Your task to perform on an android device: What is the capital of Germany? Image 0: 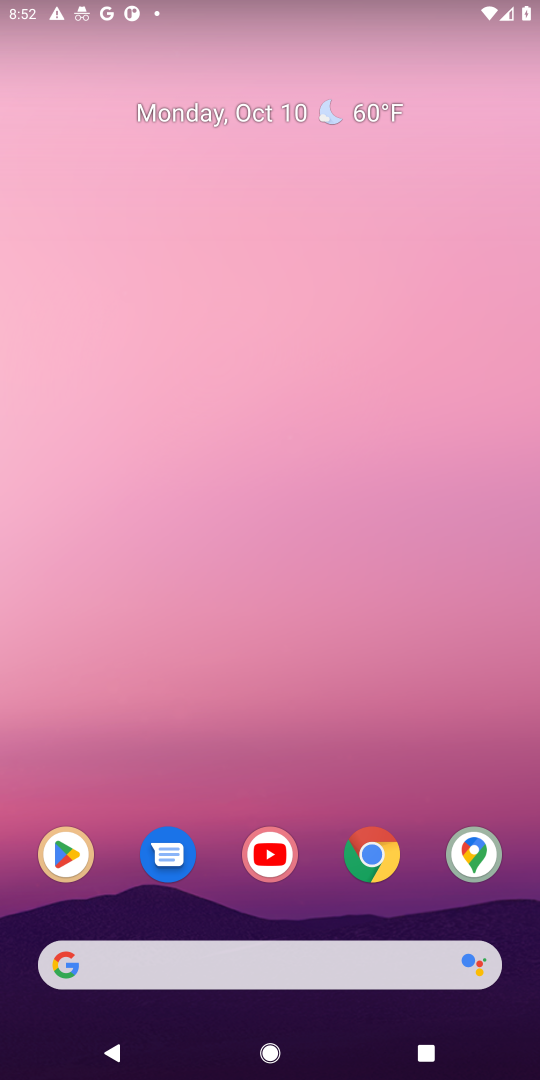
Step 0: click (363, 858)
Your task to perform on an android device: What is the capital of Germany? Image 1: 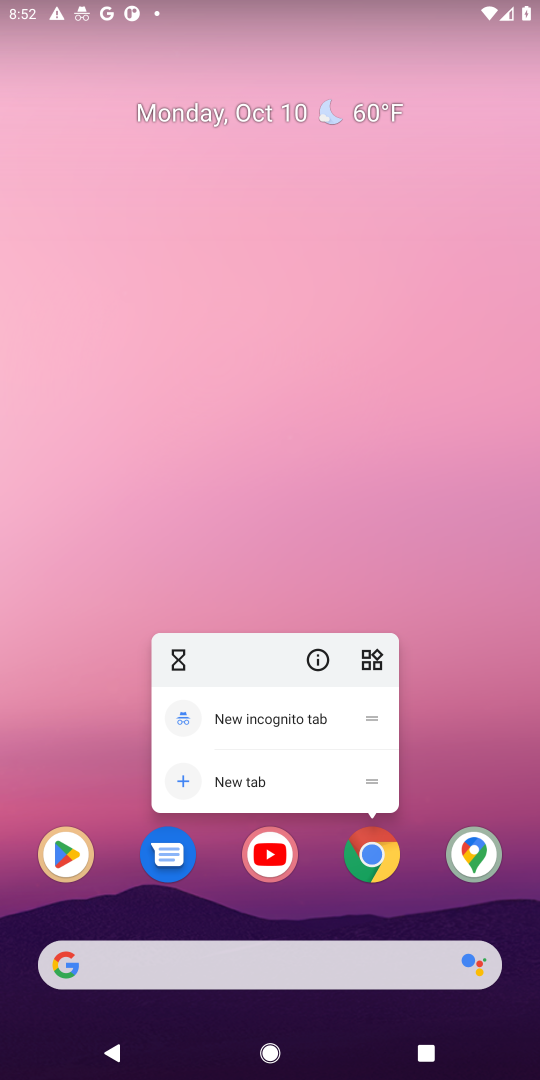
Step 1: click (374, 855)
Your task to perform on an android device: What is the capital of Germany? Image 2: 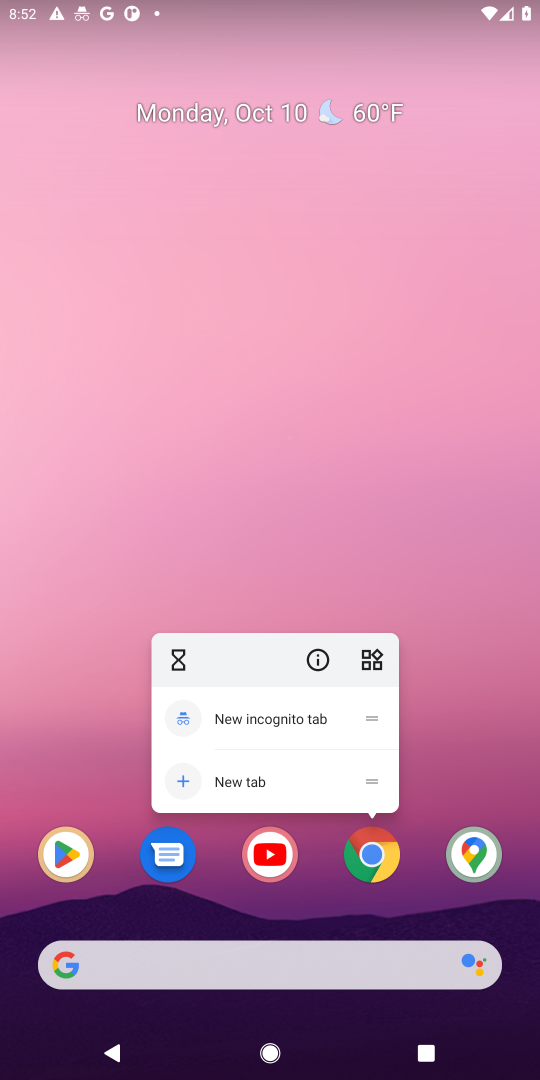
Step 2: click (374, 855)
Your task to perform on an android device: What is the capital of Germany? Image 3: 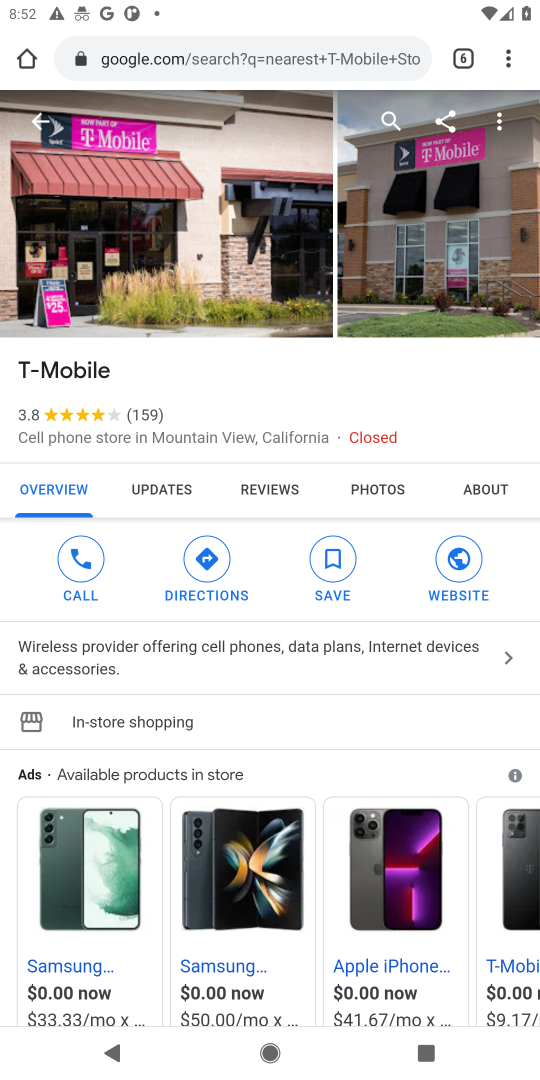
Step 3: click (279, 62)
Your task to perform on an android device: What is the capital of Germany? Image 4: 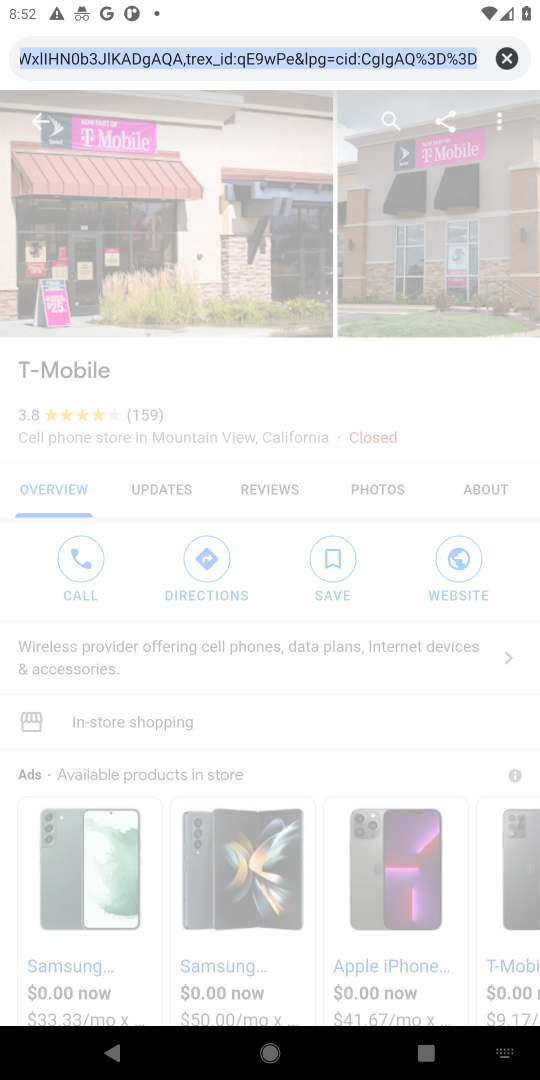
Step 4: click (502, 49)
Your task to perform on an android device: What is the capital of Germany? Image 5: 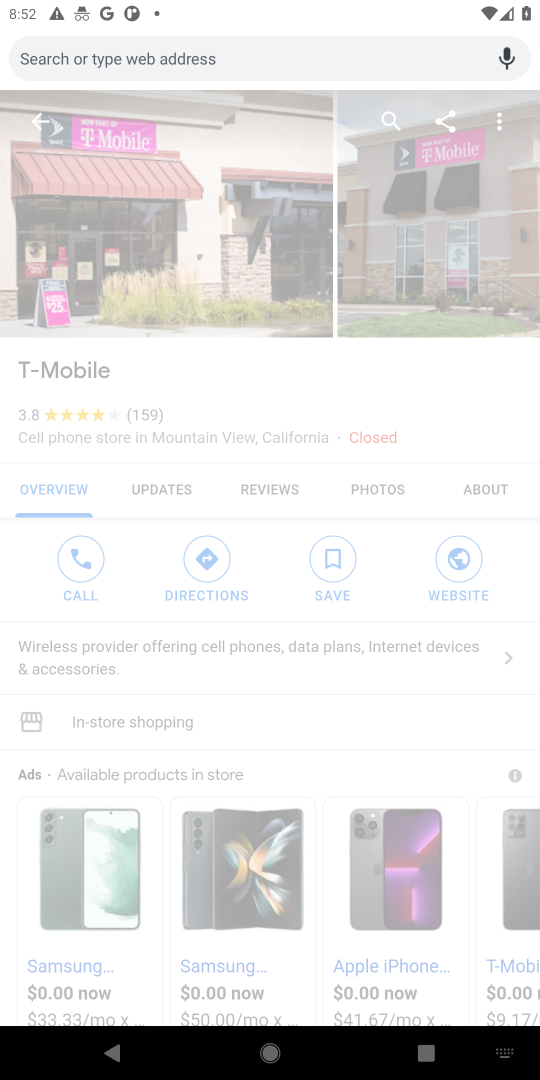
Step 5: press enter
Your task to perform on an android device: What is the capital of Germany? Image 6: 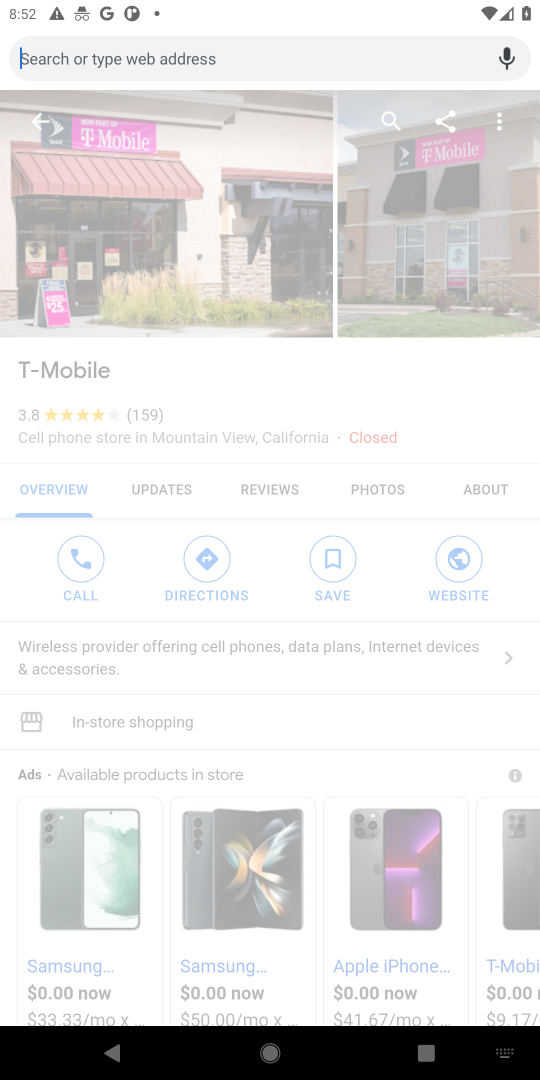
Step 6: type "capital of Germany"
Your task to perform on an android device: What is the capital of Germany? Image 7: 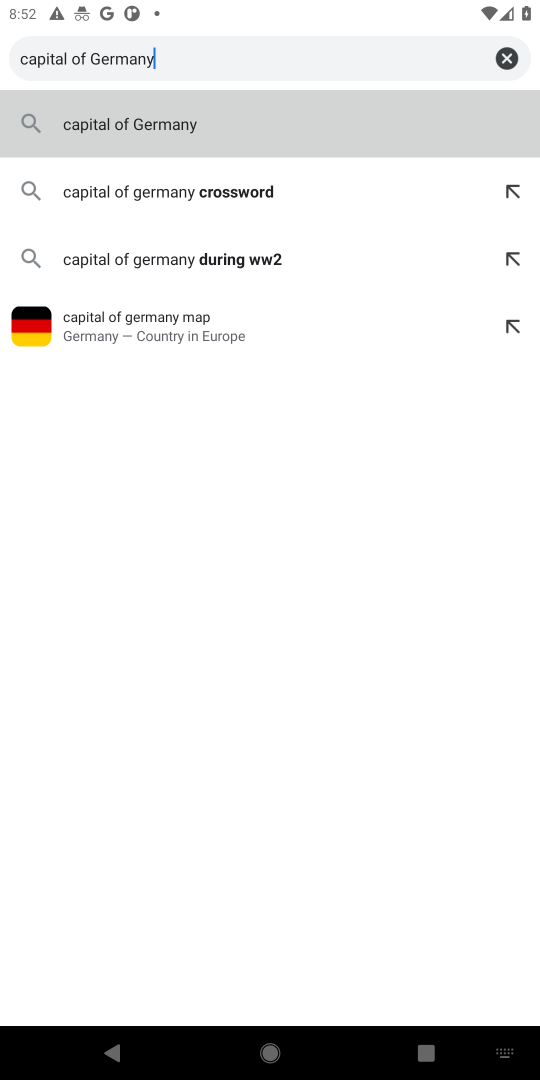
Step 7: click (197, 134)
Your task to perform on an android device: What is the capital of Germany? Image 8: 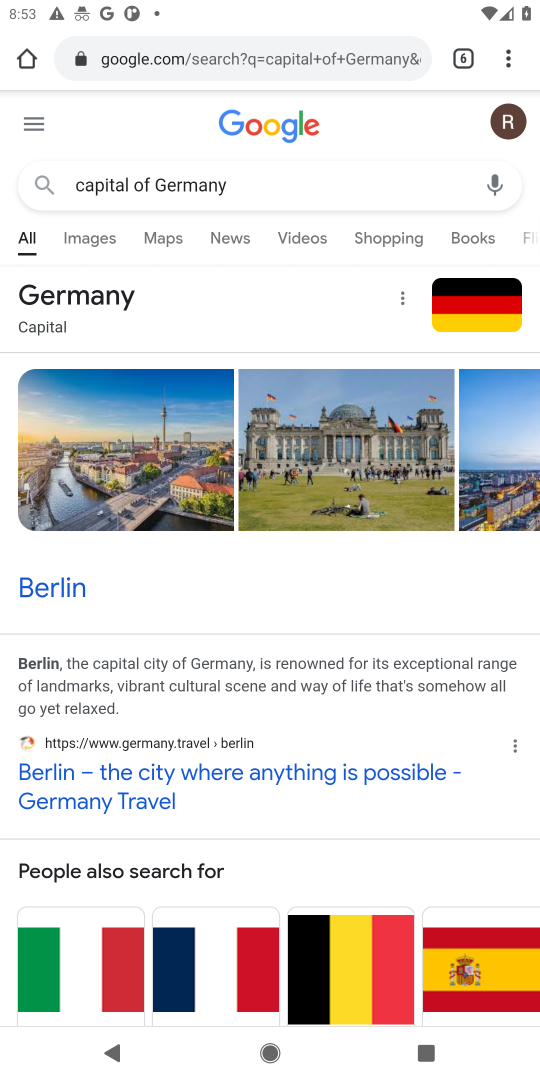
Step 8: task complete